Your task to perform on an android device: open app "Expedia: Hotels, Flights & Car" (install if not already installed) and go to login screen Image 0: 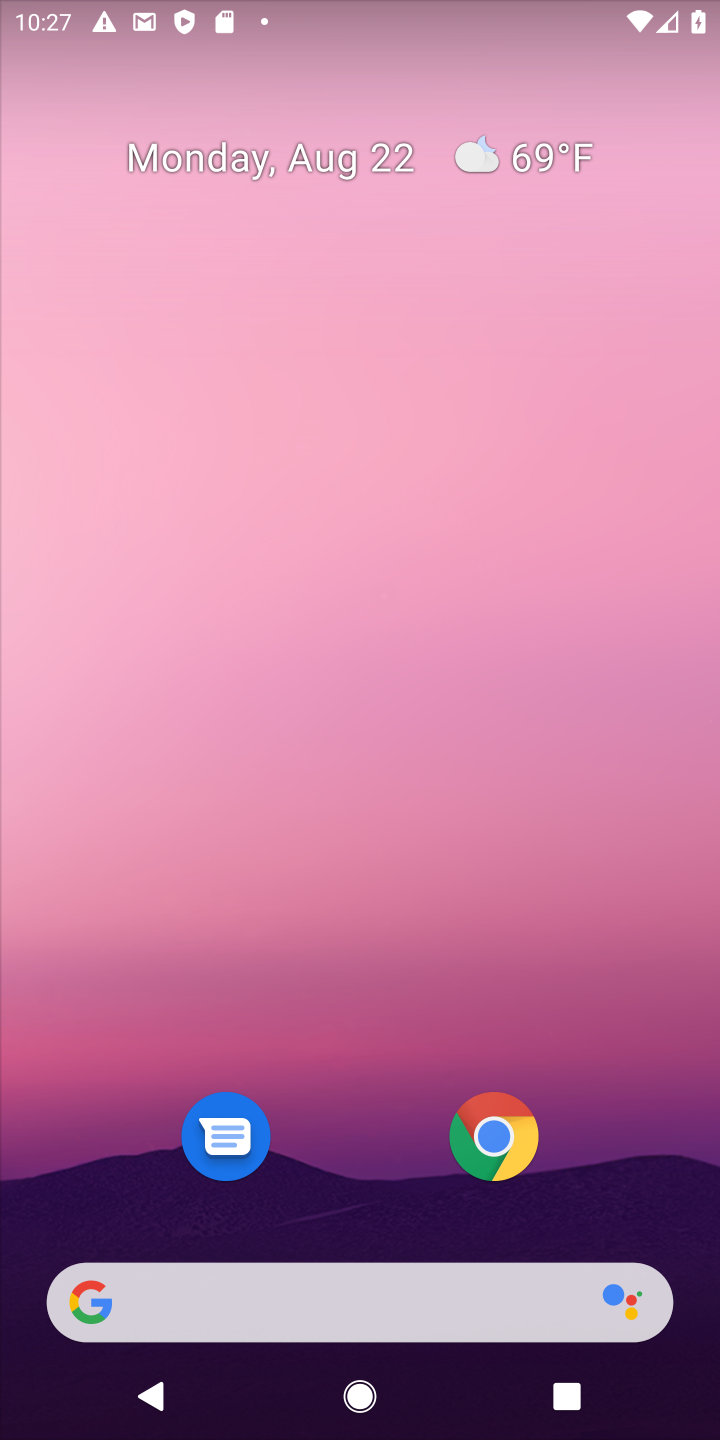
Step 0: drag from (369, 1296) to (399, 698)
Your task to perform on an android device: open app "Expedia: Hotels, Flights & Car" (install if not already installed) and go to login screen Image 1: 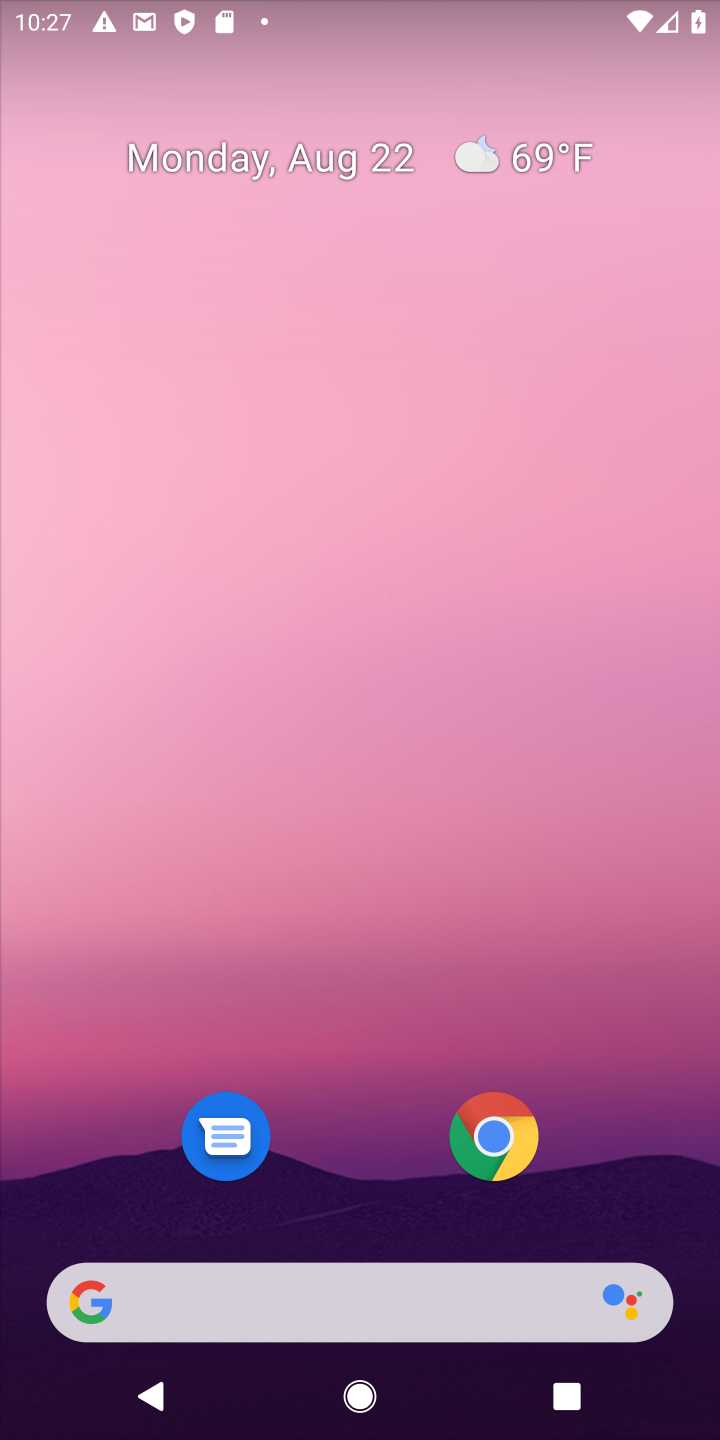
Step 1: drag from (303, 1304) to (384, 718)
Your task to perform on an android device: open app "Expedia: Hotels, Flights & Car" (install if not already installed) and go to login screen Image 2: 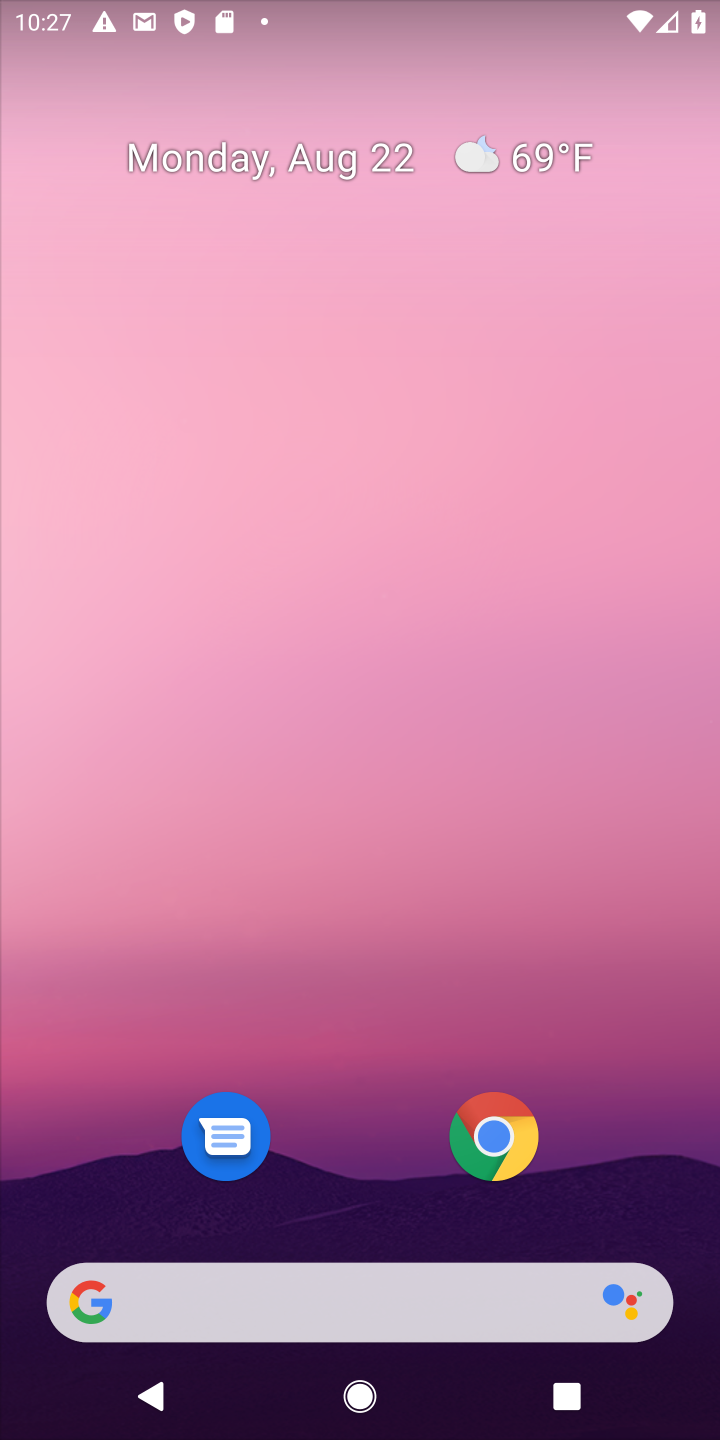
Step 2: drag from (450, 1266) to (463, 499)
Your task to perform on an android device: open app "Expedia: Hotels, Flights & Car" (install if not already installed) and go to login screen Image 3: 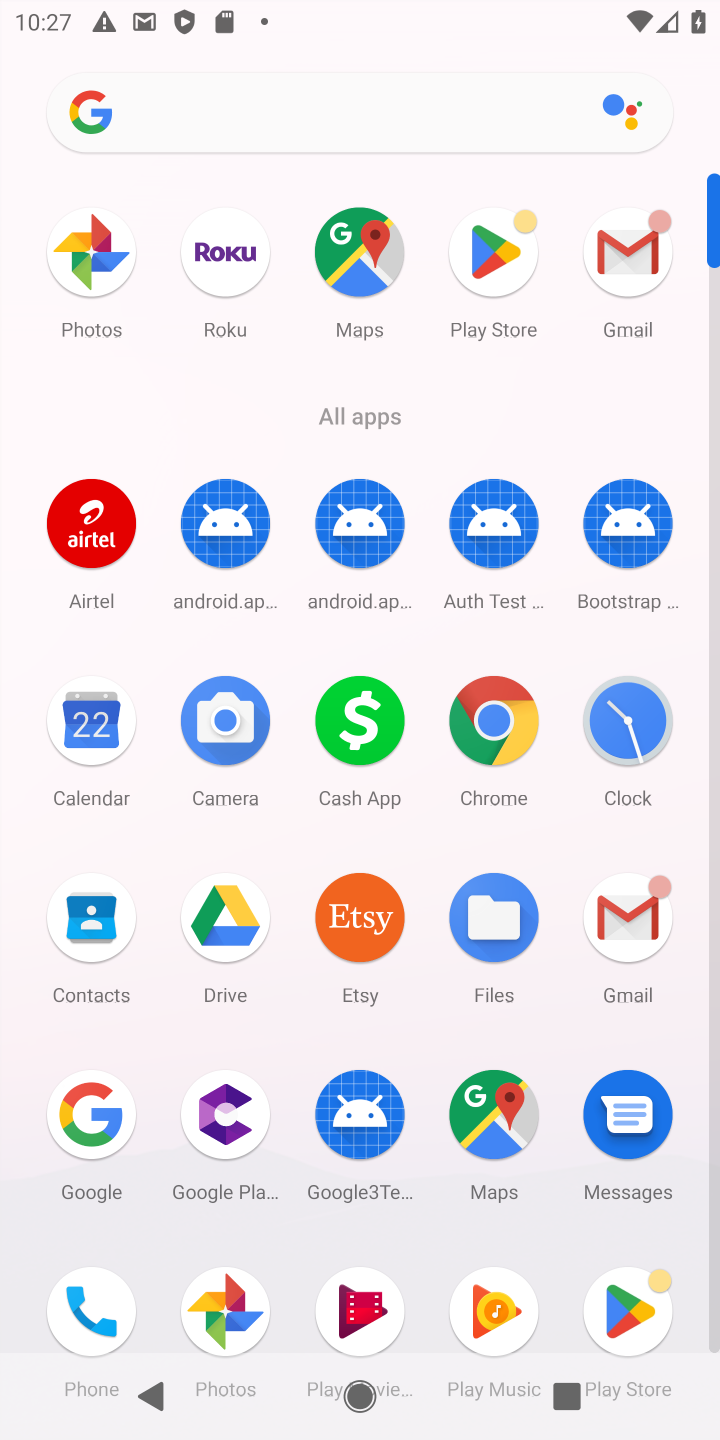
Step 3: click (471, 262)
Your task to perform on an android device: open app "Expedia: Hotels, Flights & Car" (install if not already installed) and go to login screen Image 4: 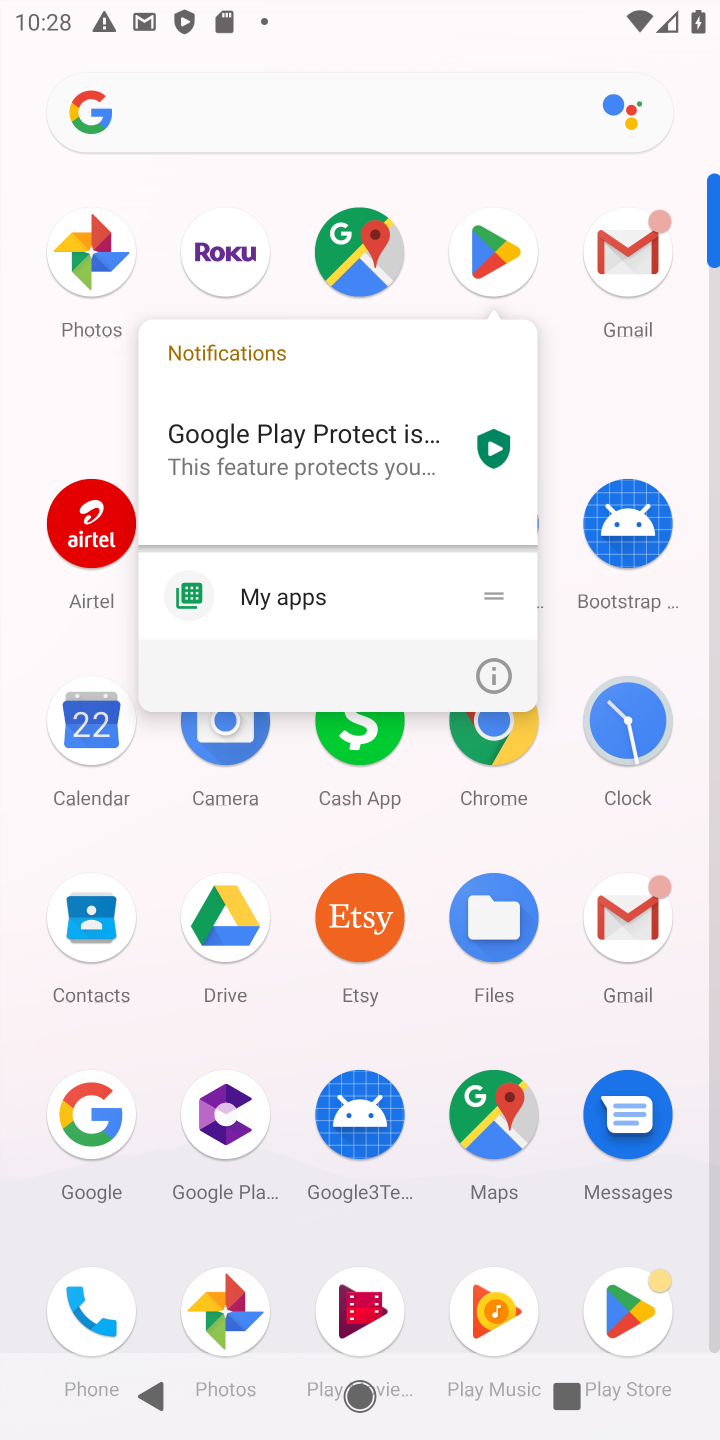
Step 4: click (490, 268)
Your task to perform on an android device: open app "Expedia: Hotels, Flights & Car" (install if not already installed) and go to login screen Image 5: 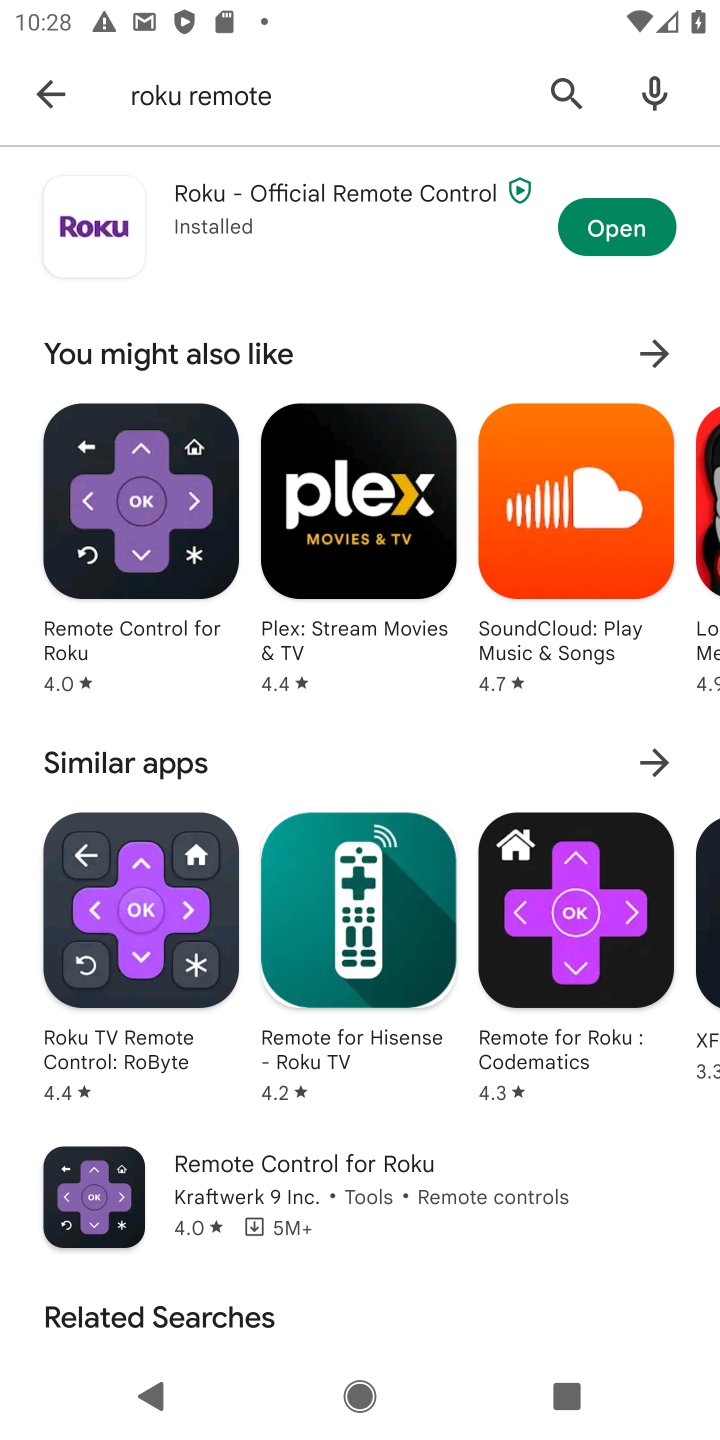
Step 5: click (568, 83)
Your task to perform on an android device: open app "Expedia: Hotels, Flights & Car" (install if not already installed) and go to login screen Image 6: 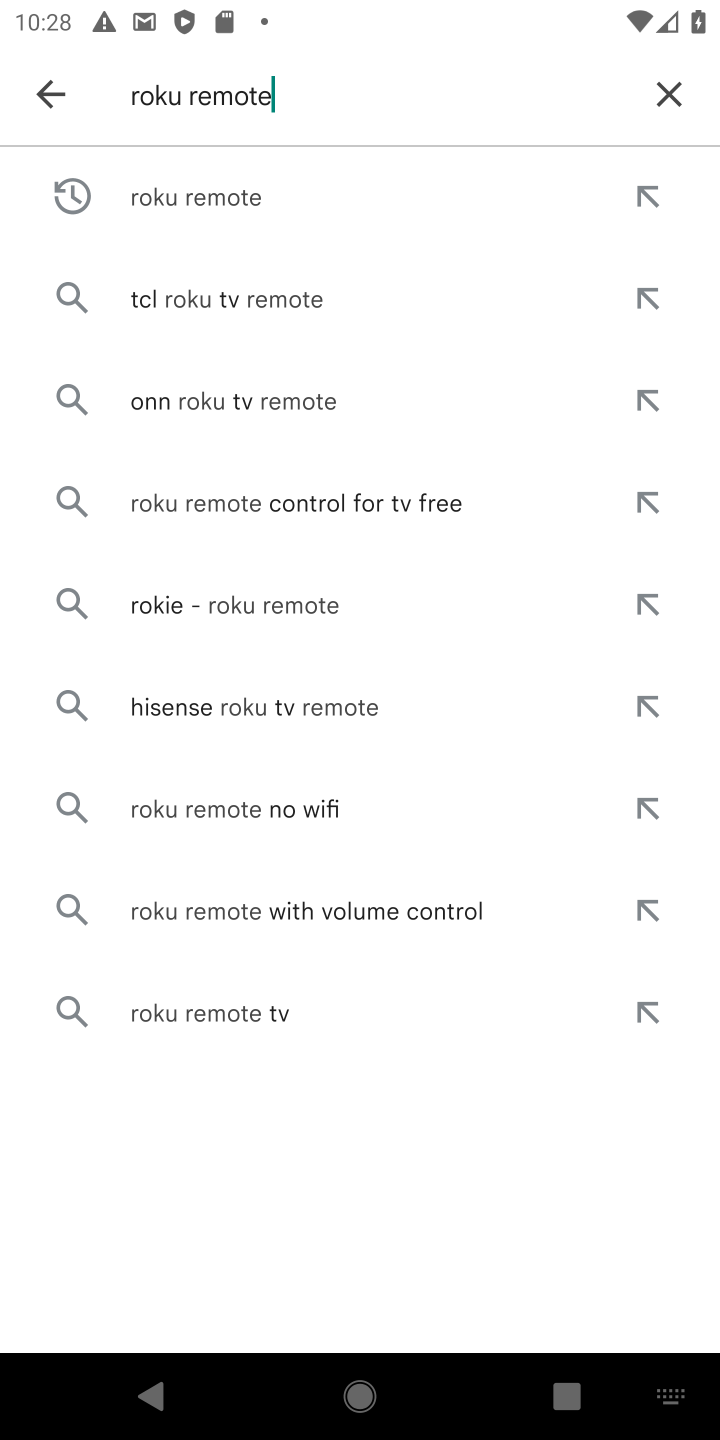
Step 6: click (664, 91)
Your task to perform on an android device: open app "Expedia: Hotels, Flights & Car" (install if not already installed) and go to login screen Image 7: 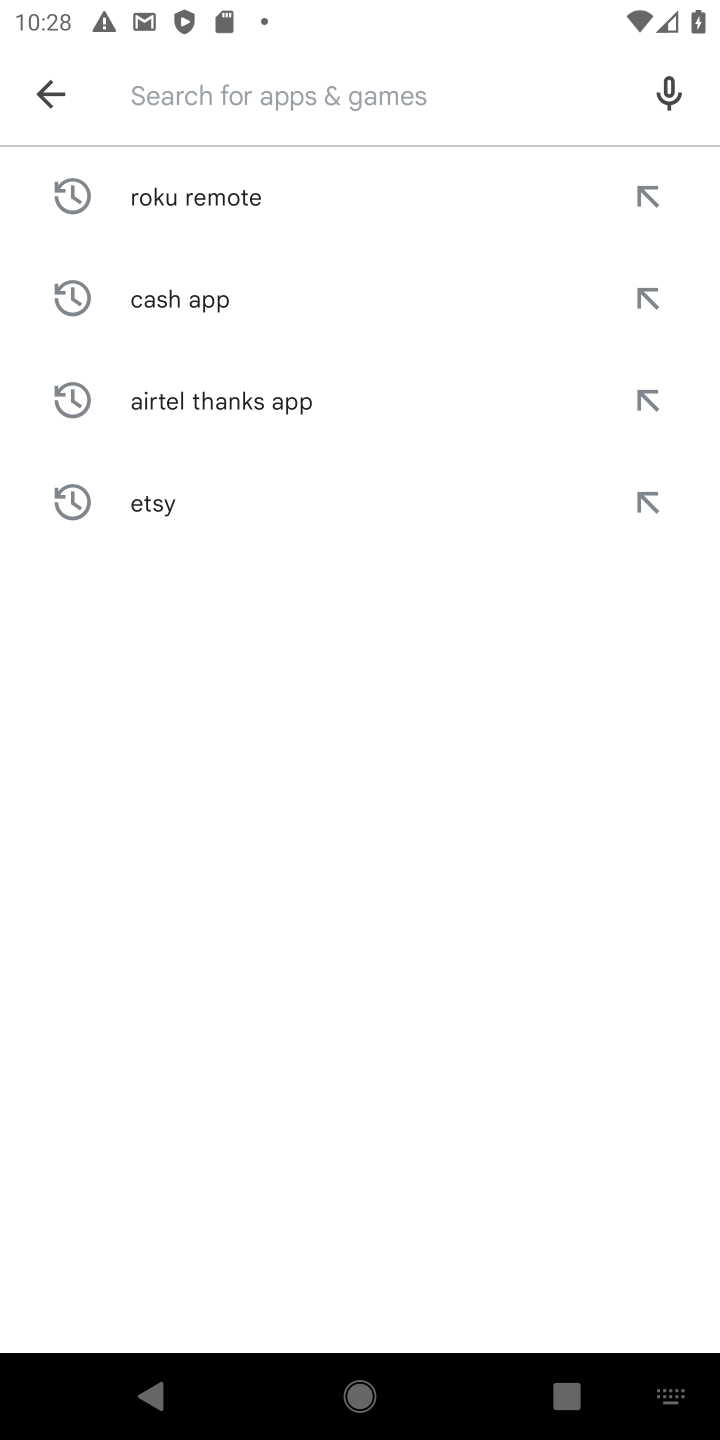
Step 7: type "expedia"
Your task to perform on an android device: open app "Expedia: Hotels, Flights & Car" (install if not already installed) and go to login screen Image 8: 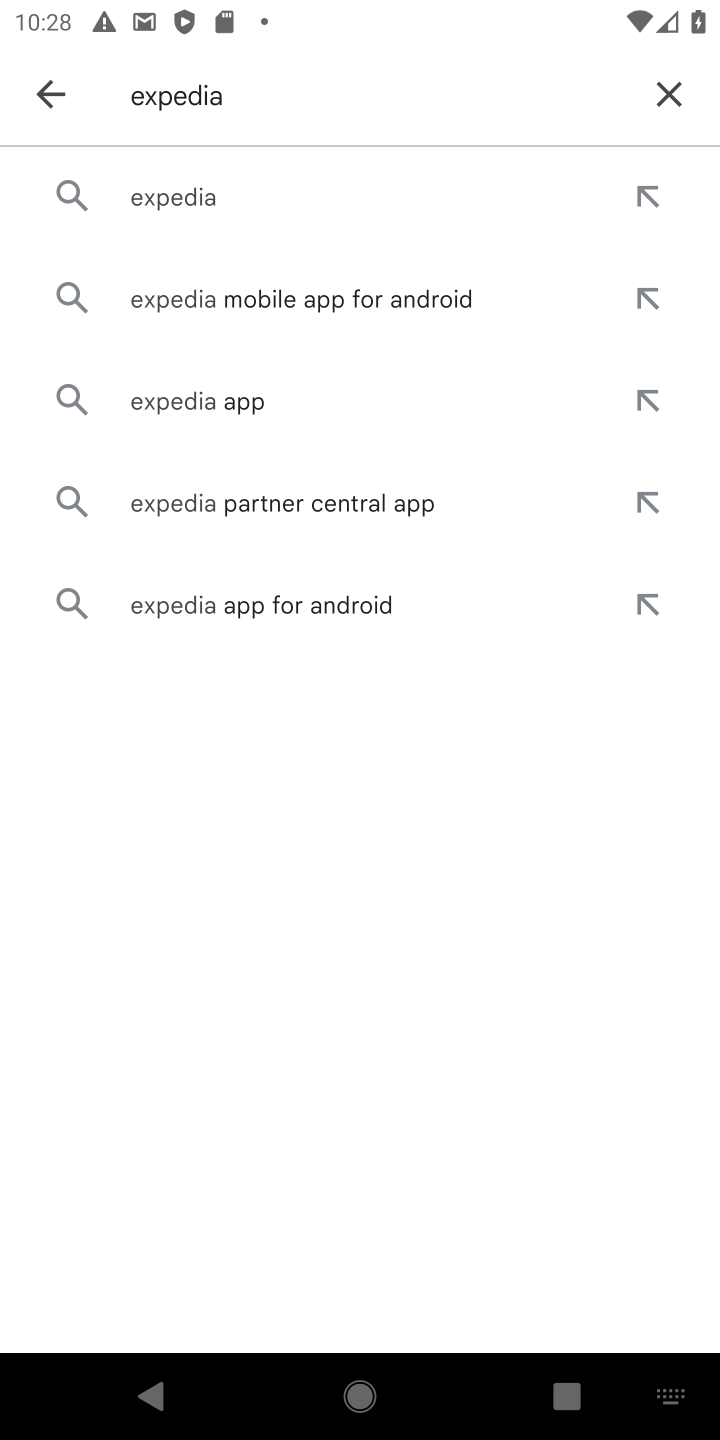
Step 8: click (265, 209)
Your task to perform on an android device: open app "Expedia: Hotels, Flights & Car" (install if not already installed) and go to login screen Image 9: 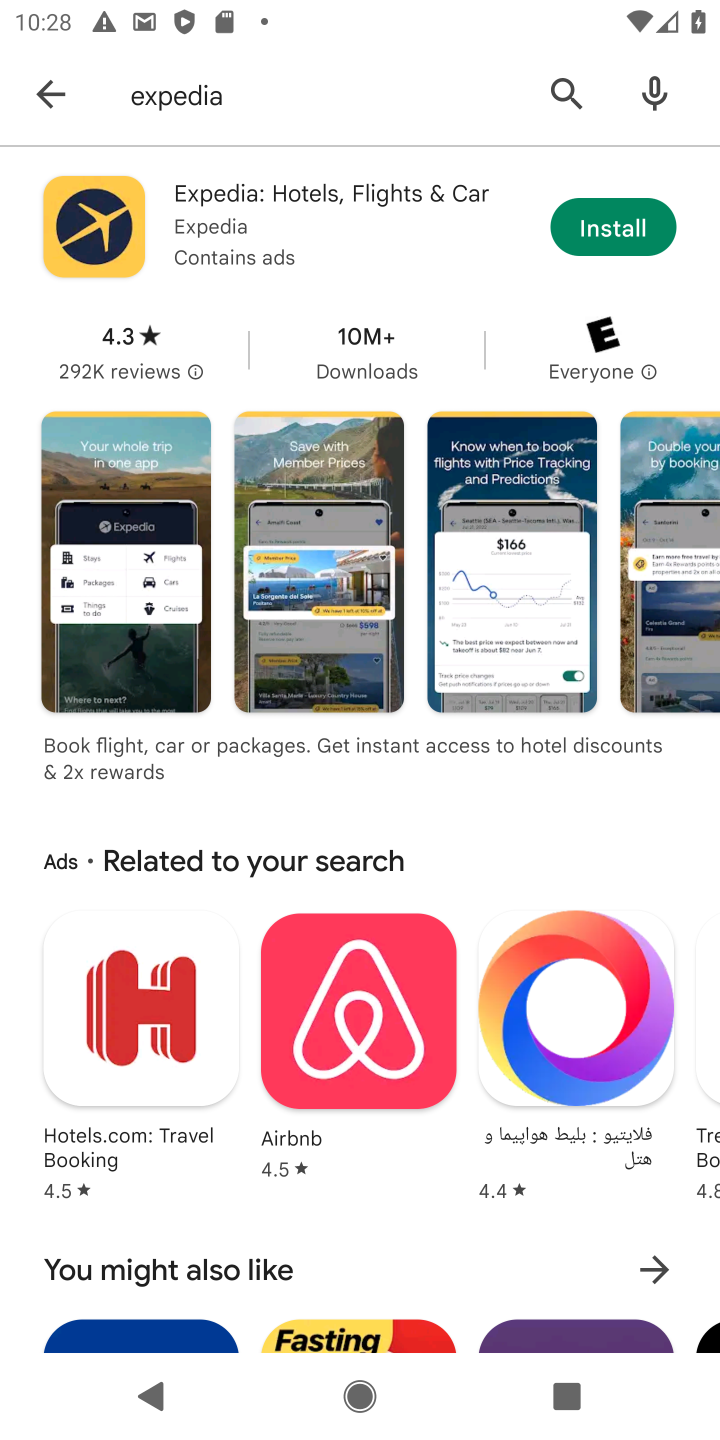
Step 9: click (586, 235)
Your task to perform on an android device: open app "Expedia: Hotels, Flights & Car" (install if not already installed) and go to login screen Image 10: 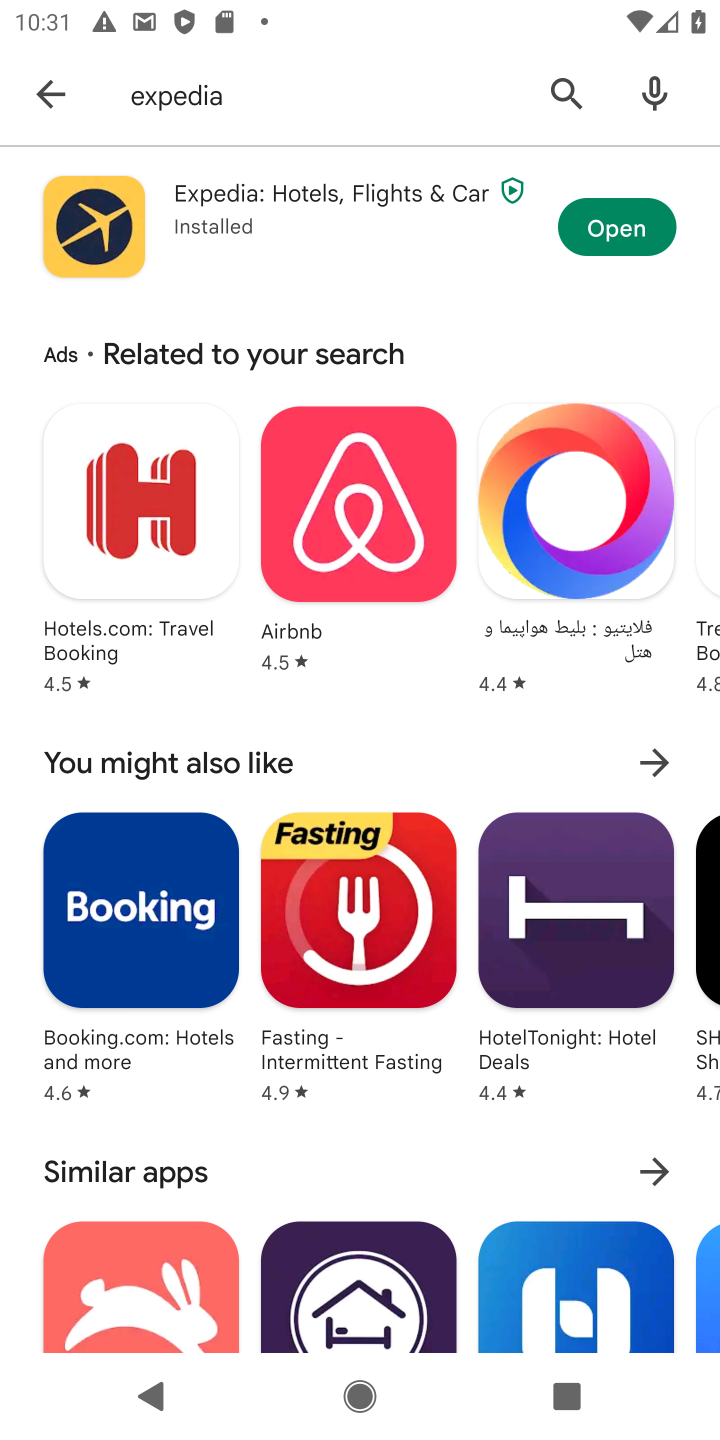
Step 10: click (636, 236)
Your task to perform on an android device: open app "Expedia: Hotels, Flights & Car" (install if not already installed) and go to login screen Image 11: 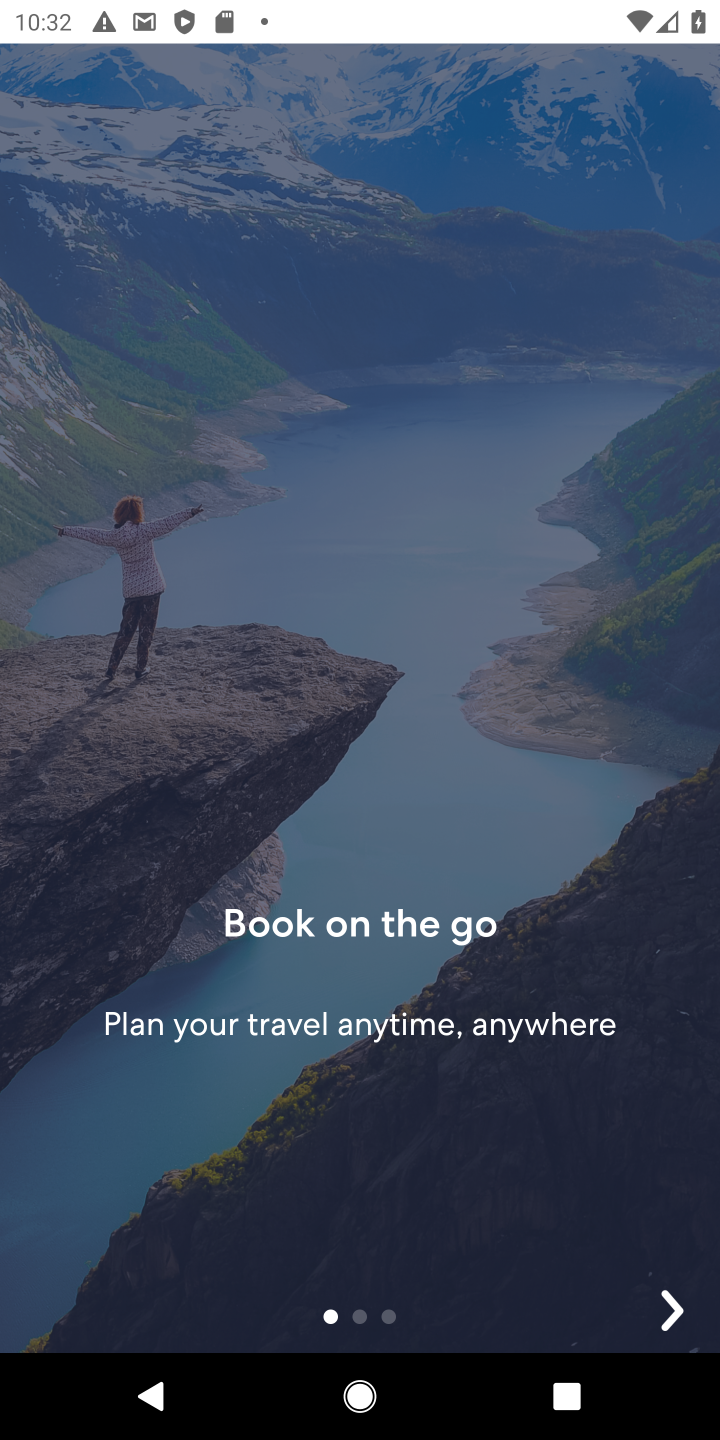
Step 11: click (684, 1301)
Your task to perform on an android device: open app "Expedia: Hotels, Flights & Car" (install if not already installed) and go to login screen Image 12: 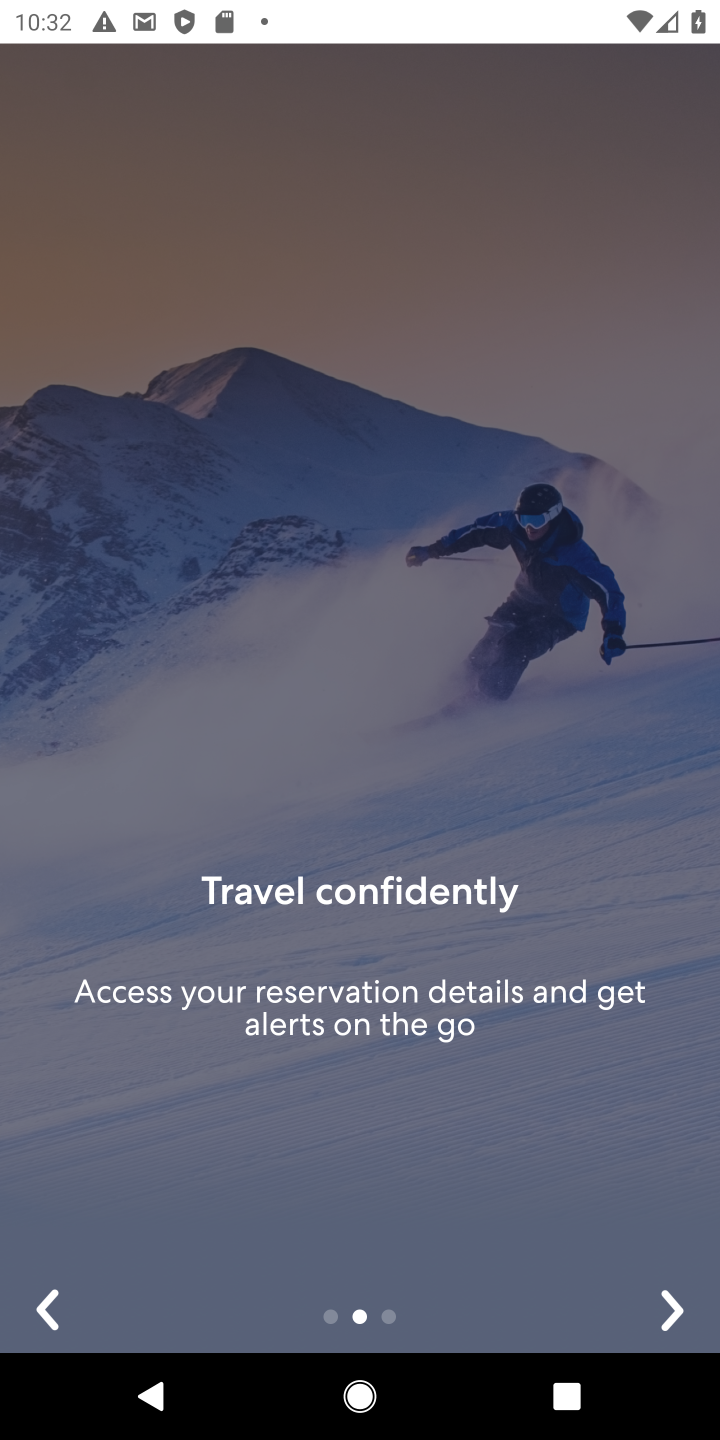
Step 12: click (684, 1301)
Your task to perform on an android device: open app "Expedia: Hotels, Flights & Car" (install if not already installed) and go to login screen Image 13: 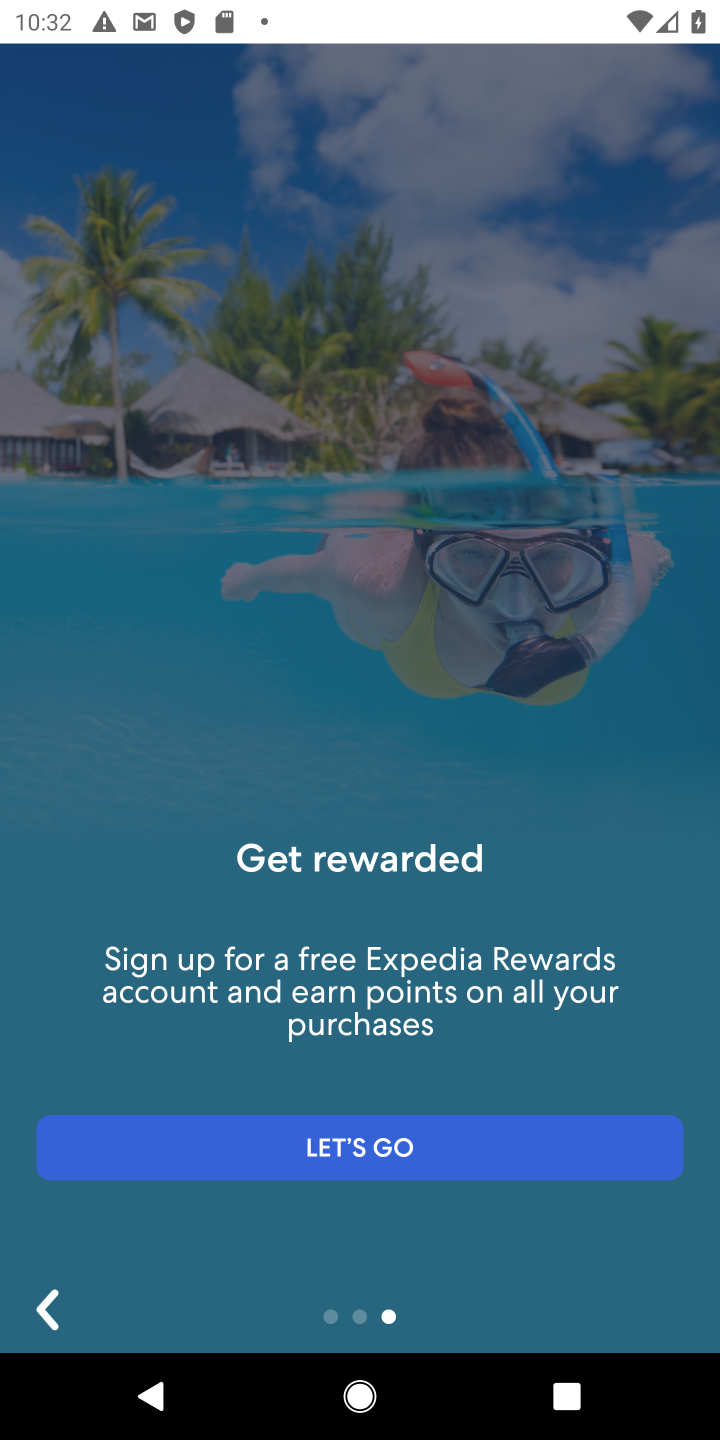
Step 13: click (426, 1134)
Your task to perform on an android device: open app "Expedia: Hotels, Flights & Car" (install if not already installed) and go to login screen Image 14: 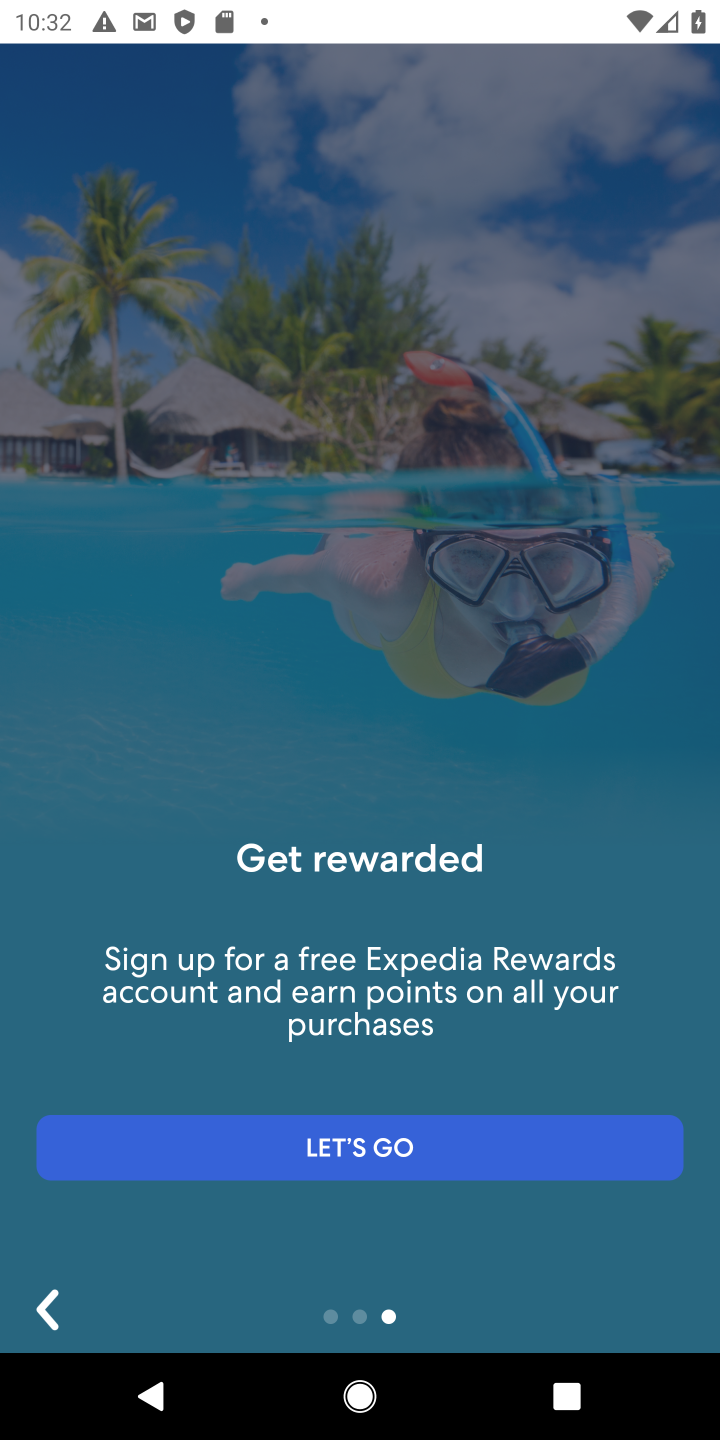
Step 14: click (327, 1134)
Your task to perform on an android device: open app "Expedia: Hotels, Flights & Car" (install if not already installed) and go to login screen Image 15: 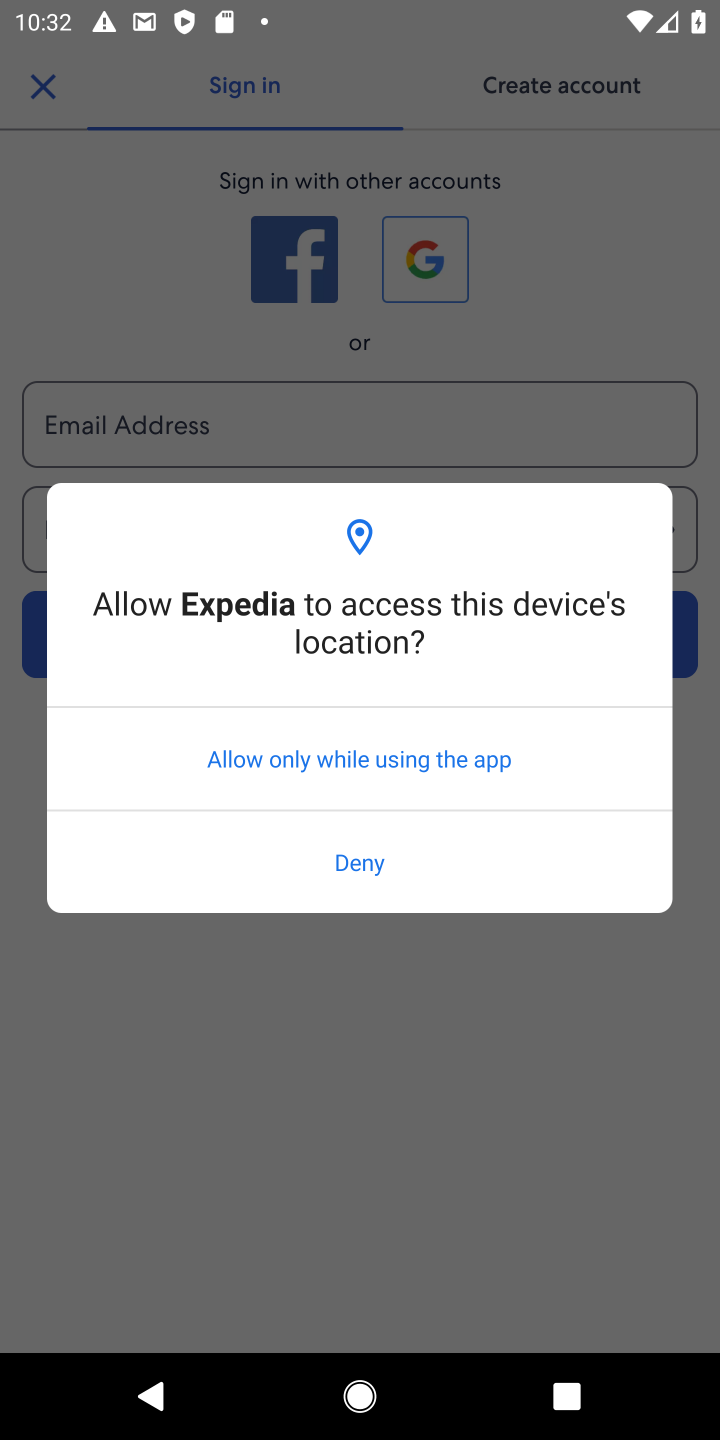
Step 15: click (378, 778)
Your task to perform on an android device: open app "Expedia: Hotels, Flights & Car" (install if not already installed) and go to login screen Image 16: 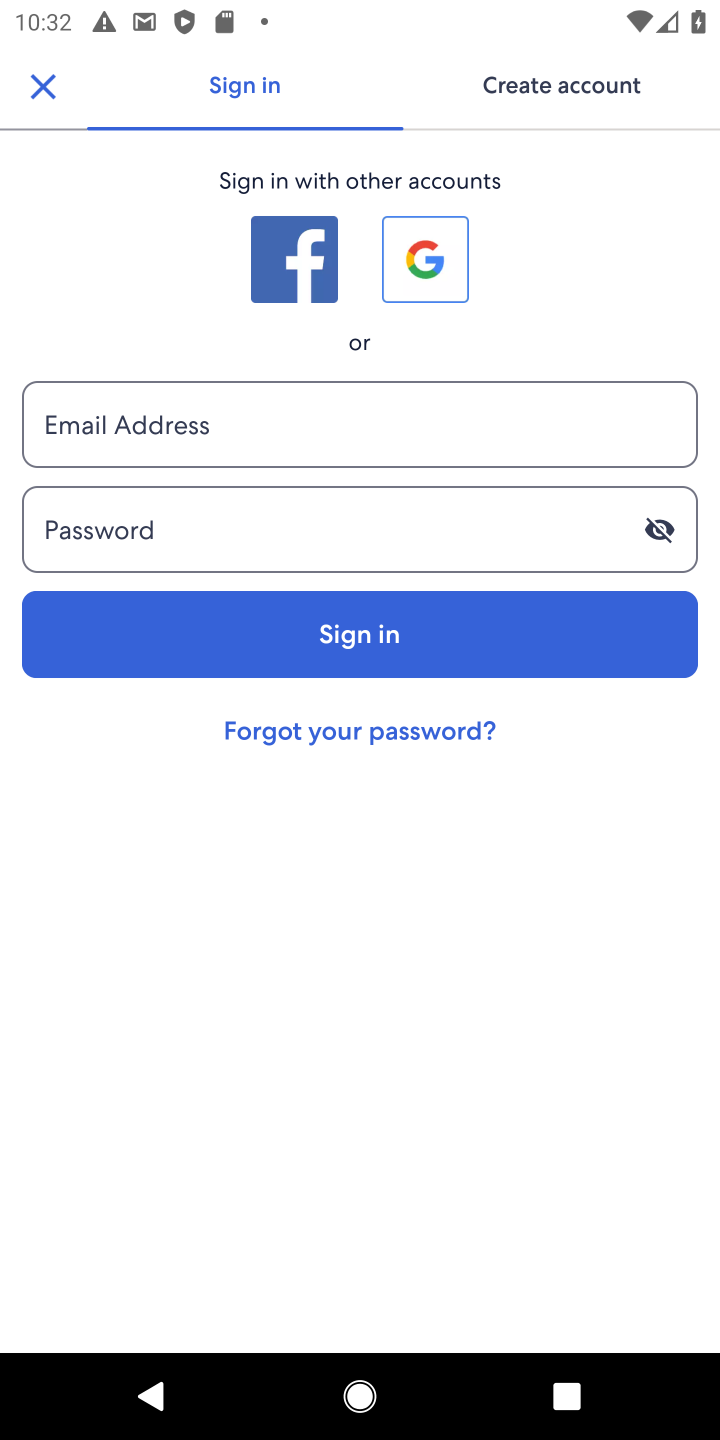
Step 16: task complete